Your task to perform on an android device: Check the weather Image 0: 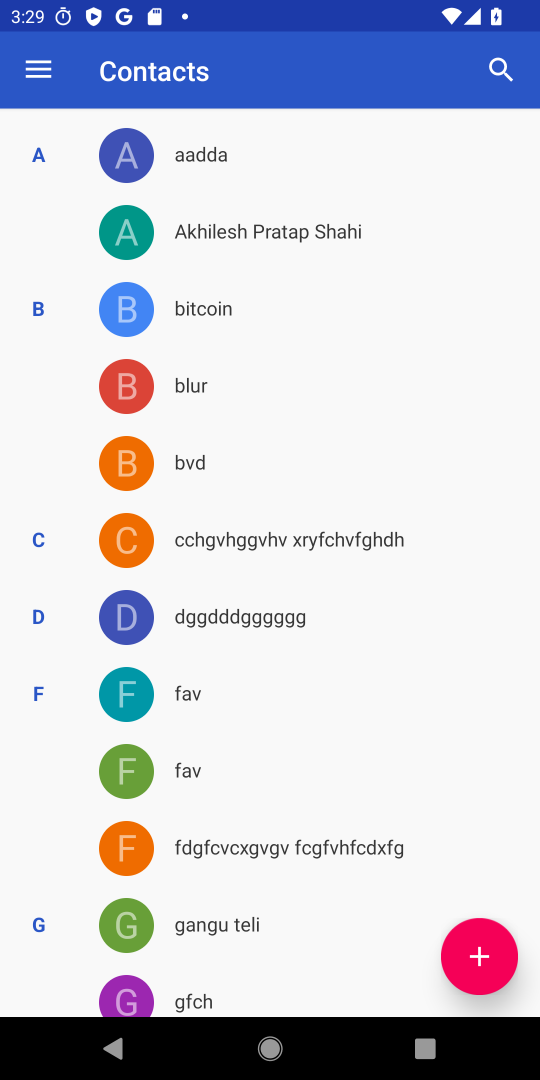
Step 0: press home button
Your task to perform on an android device: Check the weather Image 1: 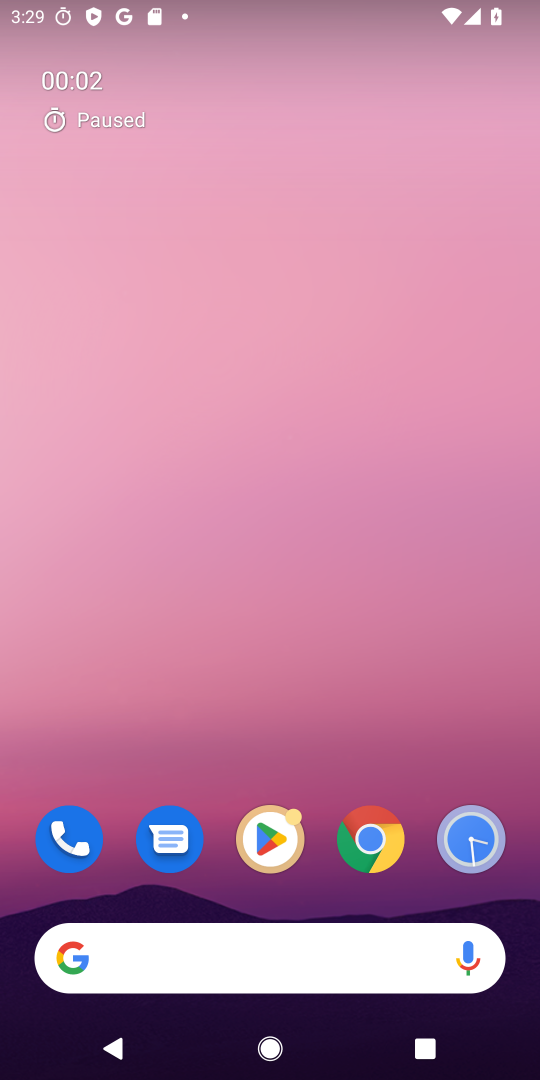
Step 1: click (513, 117)
Your task to perform on an android device: Check the weather Image 2: 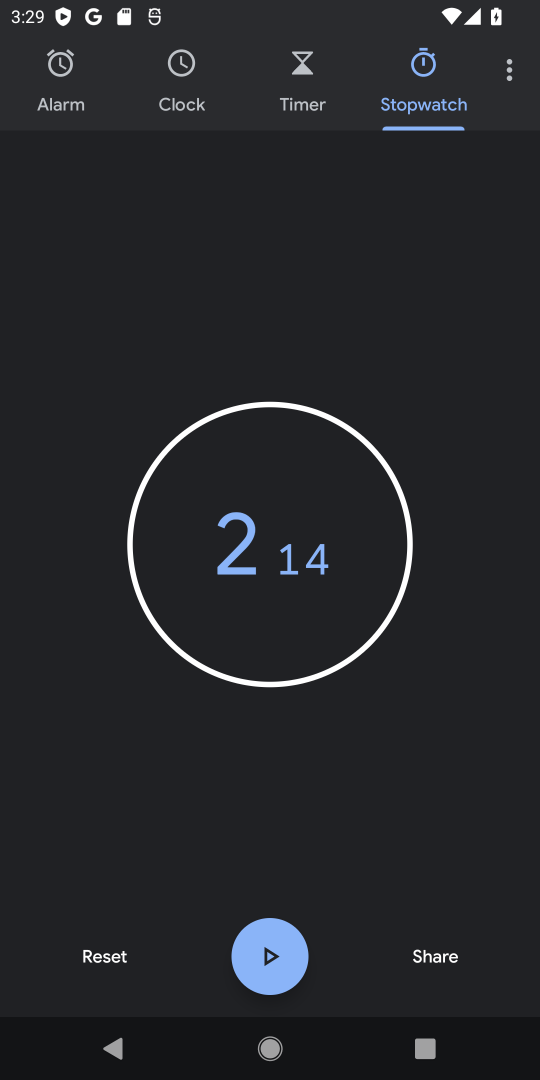
Step 2: press home button
Your task to perform on an android device: Check the weather Image 3: 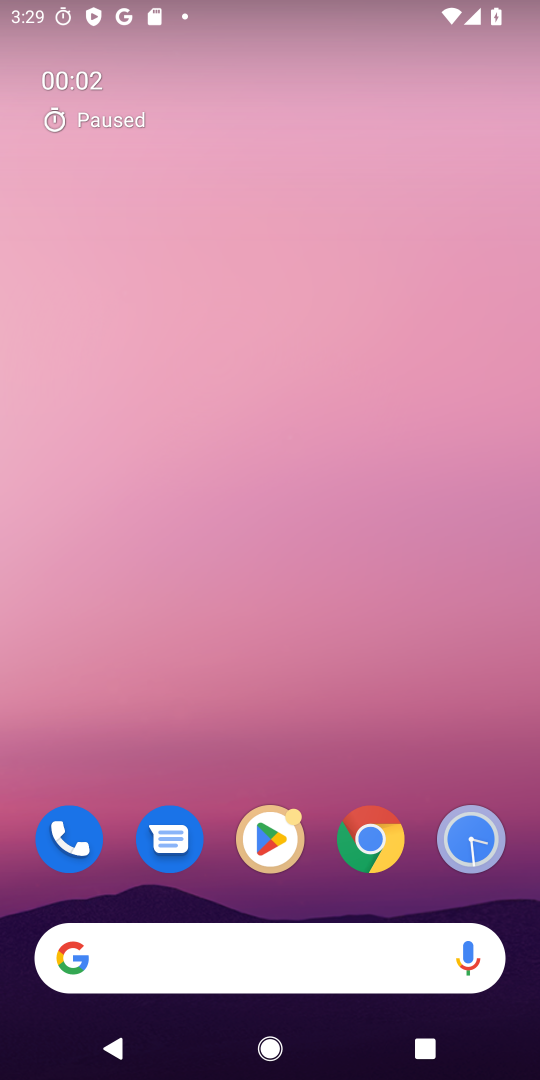
Step 3: click (143, 966)
Your task to perform on an android device: Check the weather Image 4: 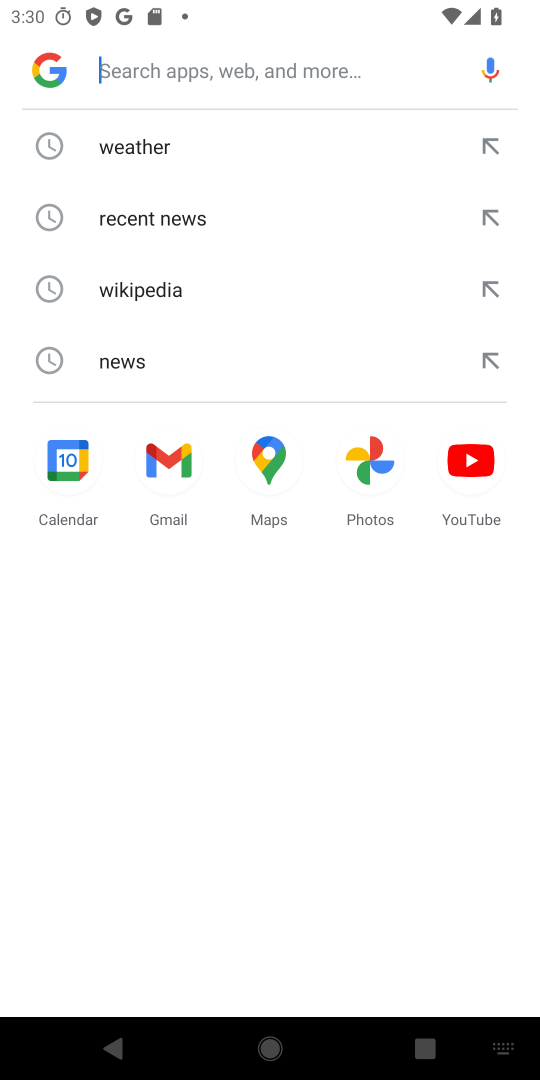
Step 4: type "Check the weather"
Your task to perform on an android device: Check the weather Image 5: 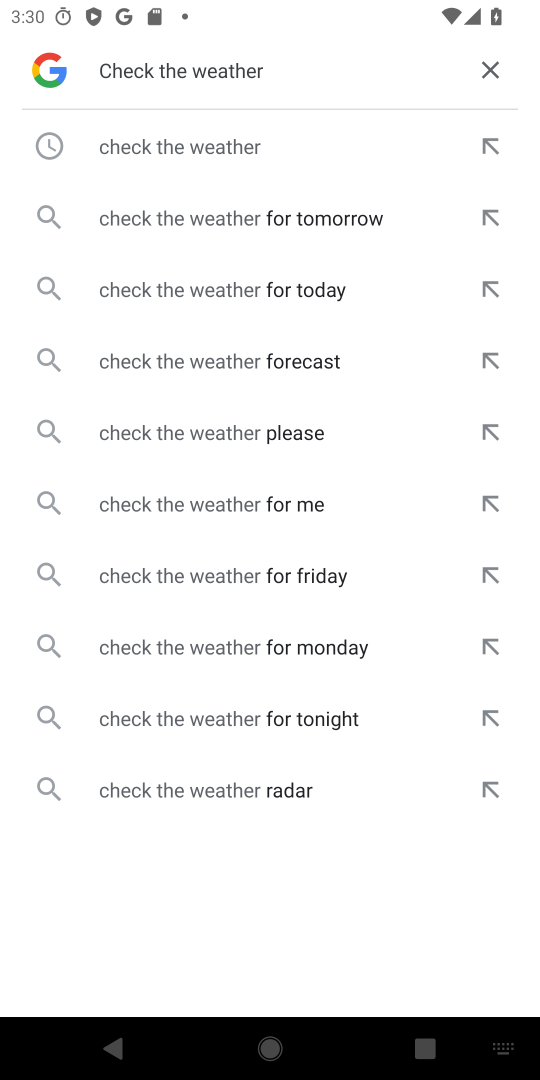
Step 5: click (196, 146)
Your task to perform on an android device: Check the weather Image 6: 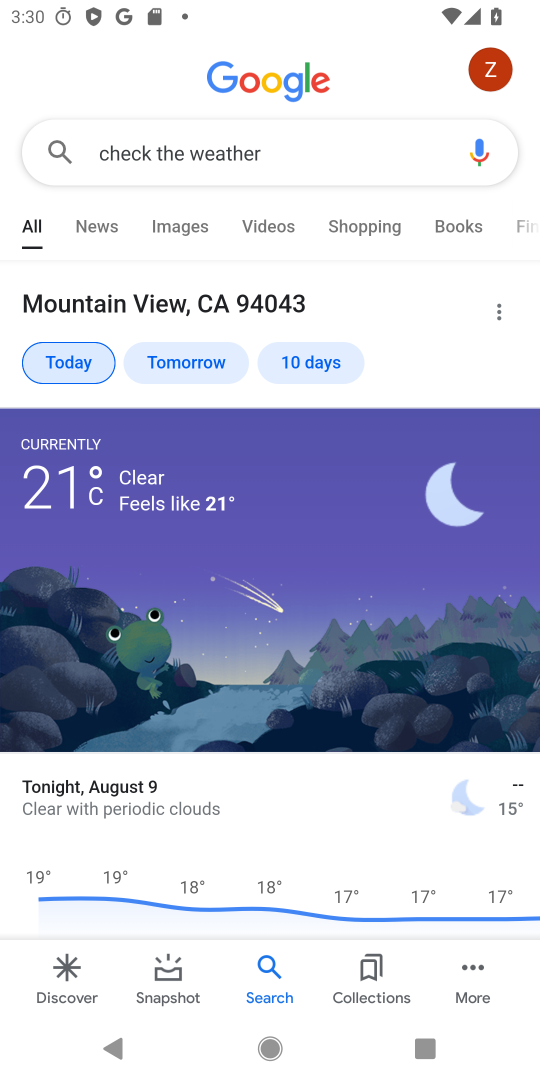
Step 6: task complete